Your task to perform on an android device: open sync settings in chrome Image 0: 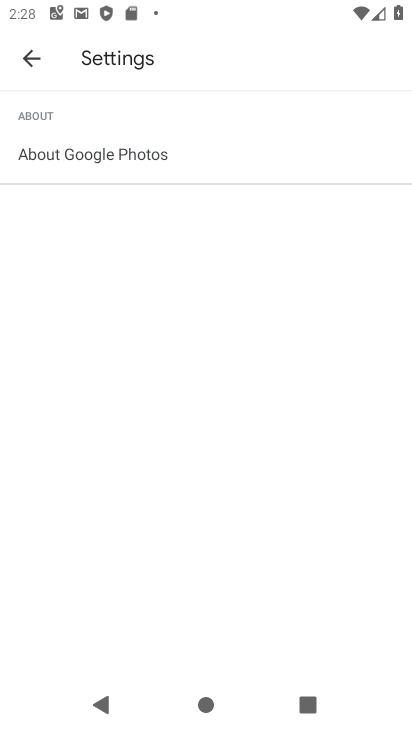
Step 0: press home button
Your task to perform on an android device: open sync settings in chrome Image 1: 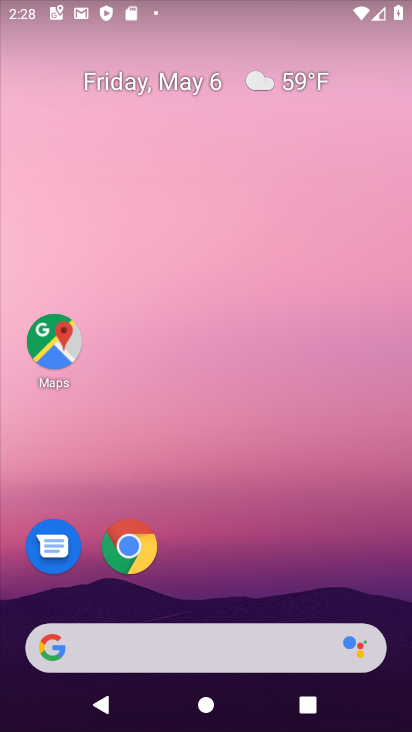
Step 1: click (123, 551)
Your task to perform on an android device: open sync settings in chrome Image 2: 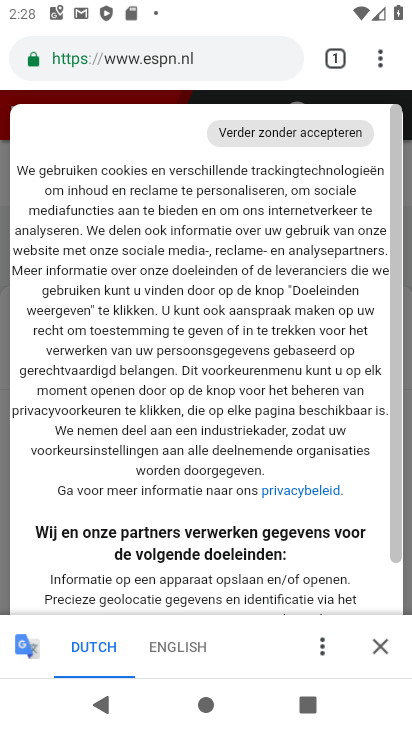
Step 2: click (386, 56)
Your task to perform on an android device: open sync settings in chrome Image 3: 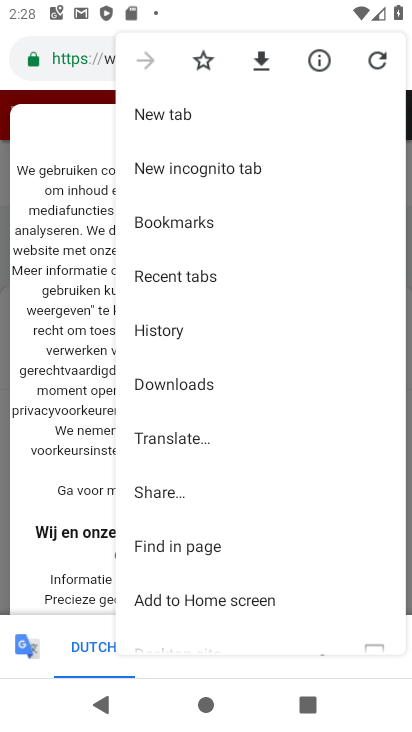
Step 3: drag from (216, 482) to (222, 228)
Your task to perform on an android device: open sync settings in chrome Image 4: 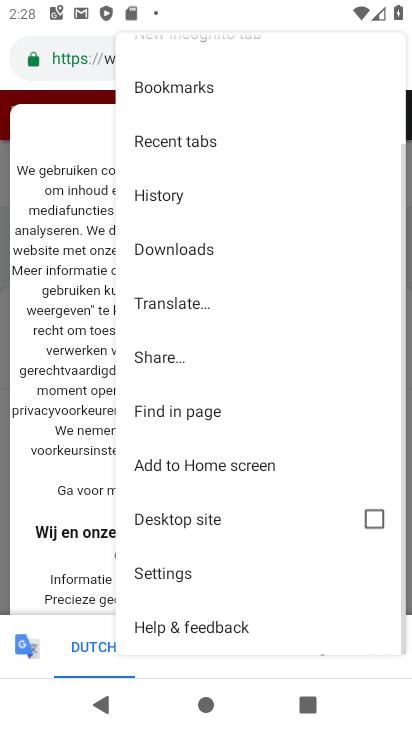
Step 4: click (198, 580)
Your task to perform on an android device: open sync settings in chrome Image 5: 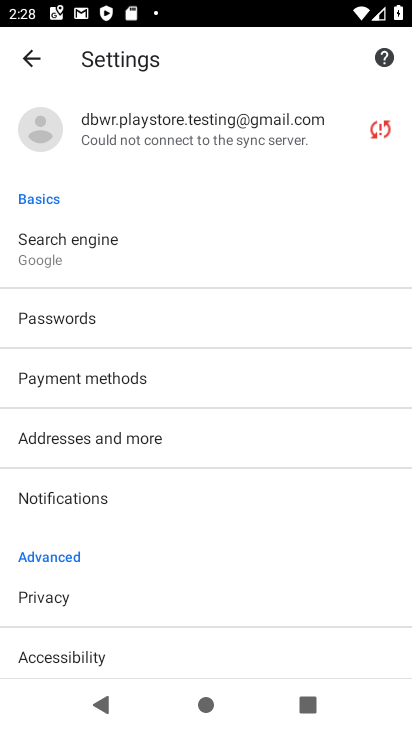
Step 5: drag from (180, 513) to (213, 628)
Your task to perform on an android device: open sync settings in chrome Image 6: 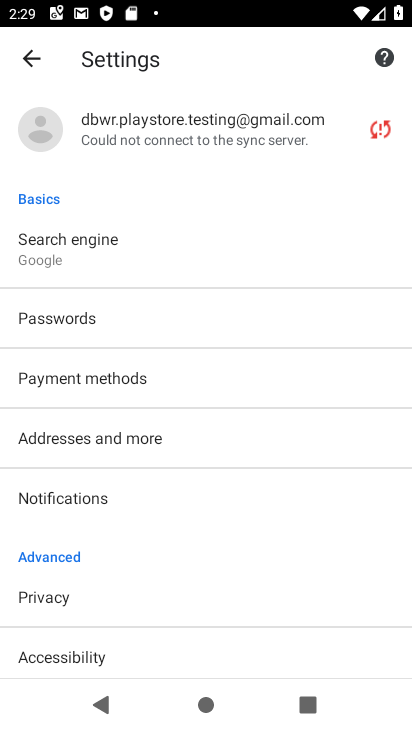
Step 6: click (219, 128)
Your task to perform on an android device: open sync settings in chrome Image 7: 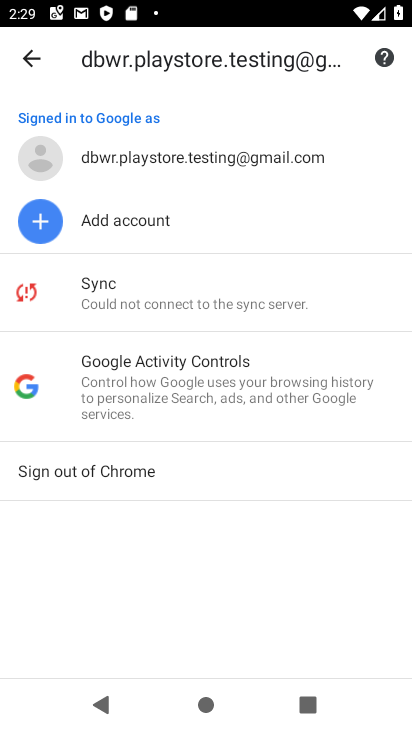
Step 7: click (178, 308)
Your task to perform on an android device: open sync settings in chrome Image 8: 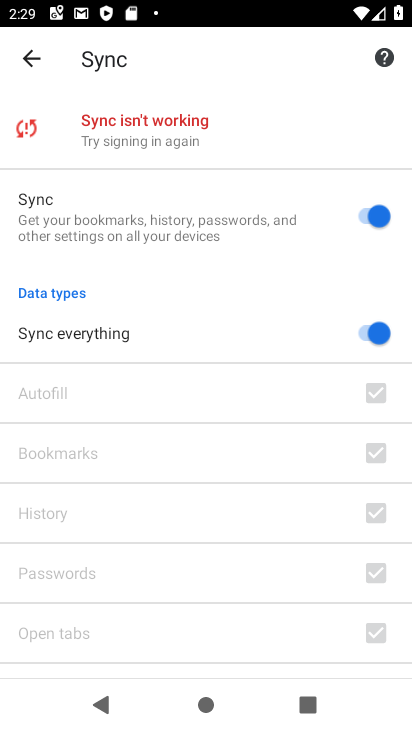
Step 8: task complete